Your task to perform on an android device: find photos in the google photos app Image 0: 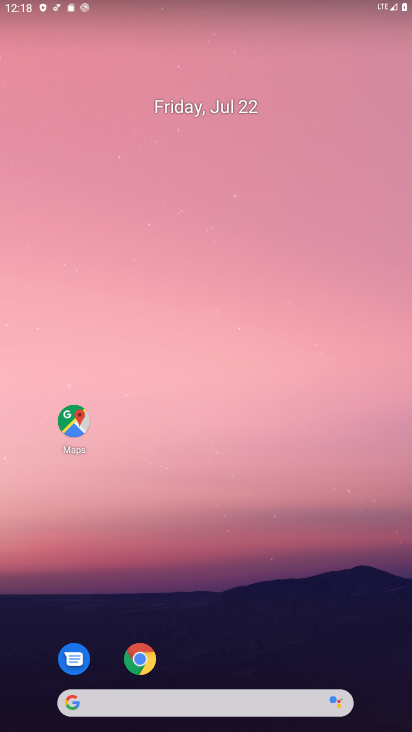
Step 0: drag from (232, 651) to (232, 241)
Your task to perform on an android device: find photos in the google photos app Image 1: 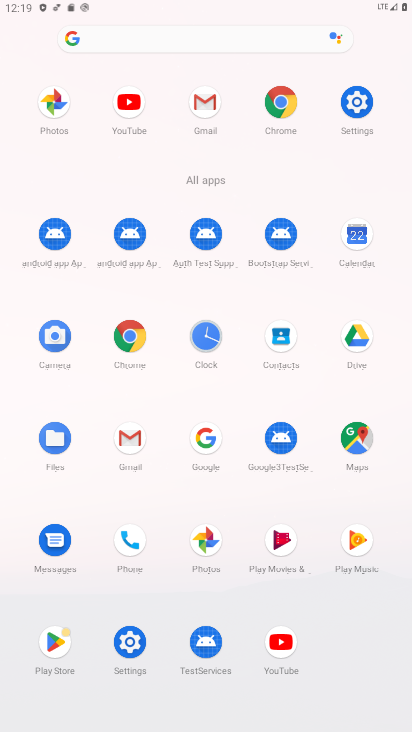
Step 1: click (215, 544)
Your task to perform on an android device: find photos in the google photos app Image 2: 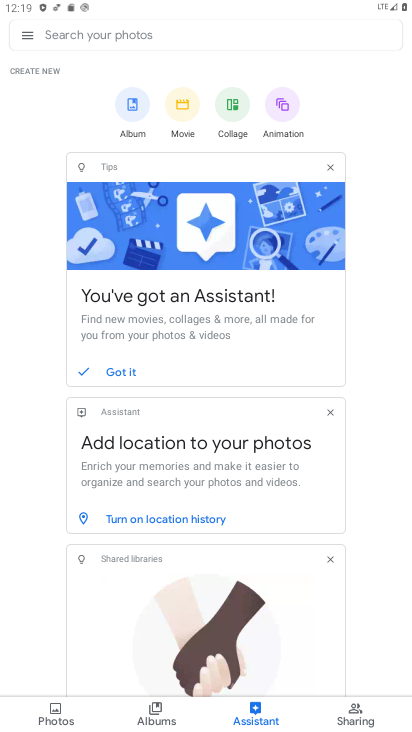
Step 2: click (62, 718)
Your task to perform on an android device: find photos in the google photos app Image 3: 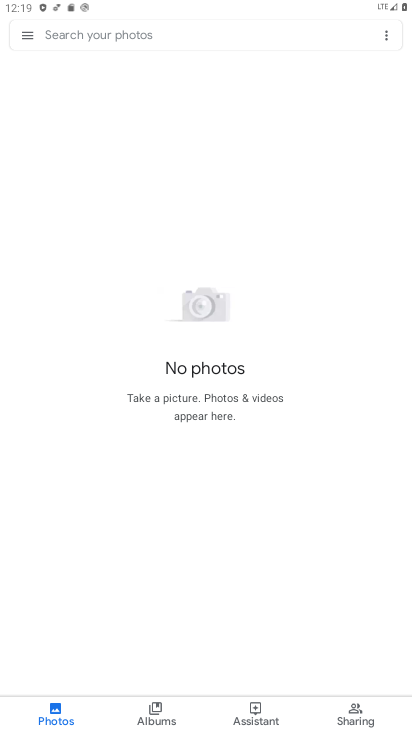
Step 3: click (89, 38)
Your task to perform on an android device: find photos in the google photos app Image 4: 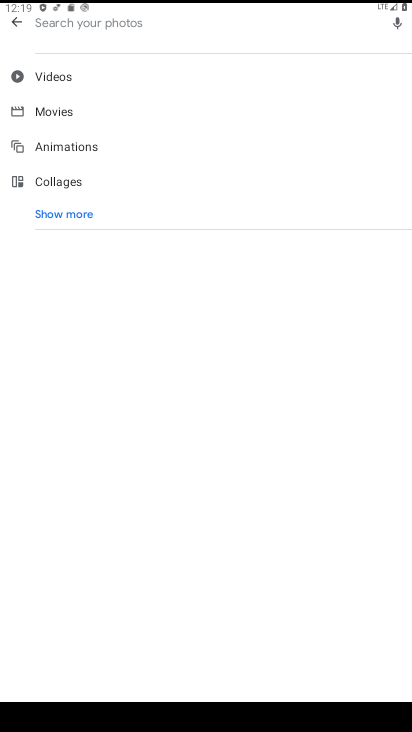
Step 4: type "aa"
Your task to perform on an android device: find photos in the google photos app Image 5: 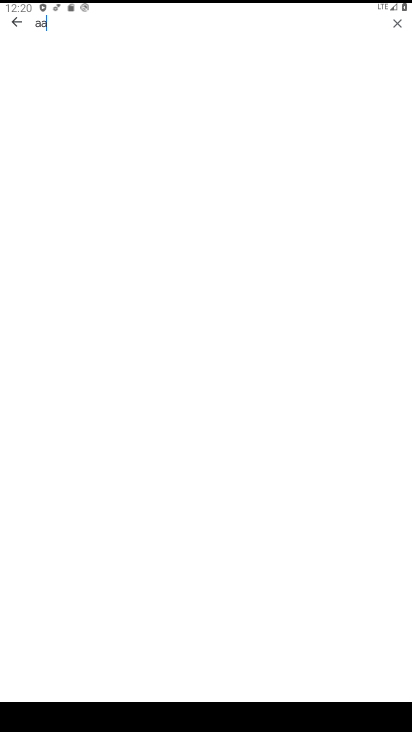
Step 5: task complete